Your task to perform on an android device: read, delete, or share a saved page in the chrome app Image 0: 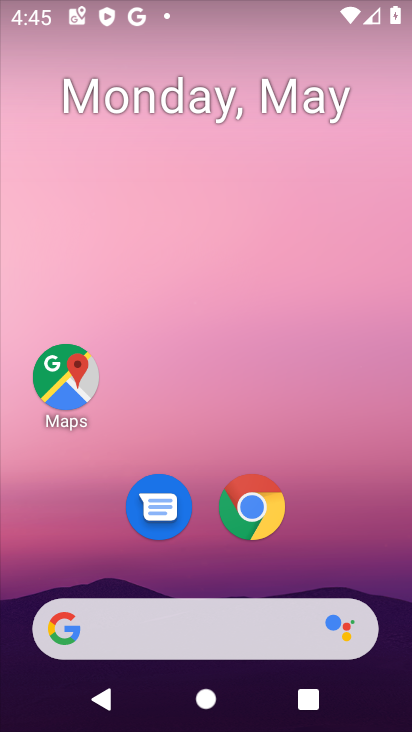
Step 0: drag from (366, 462) to (349, 31)
Your task to perform on an android device: read, delete, or share a saved page in the chrome app Image 1: 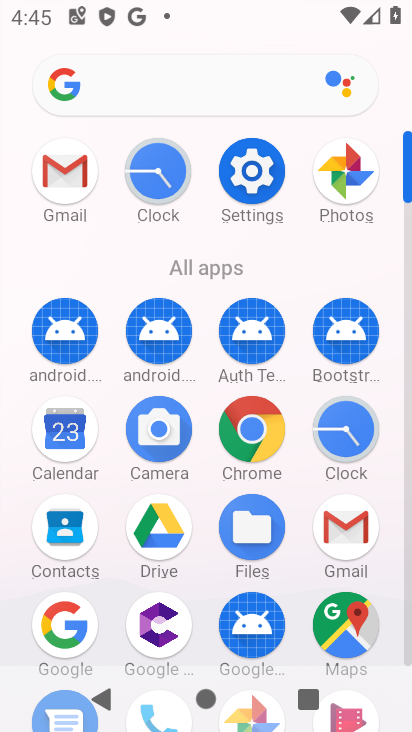
Step 1: click (264, 427)
Your task to perform on an android device: read, delete, or share a saved page in the chrome app Image 2: 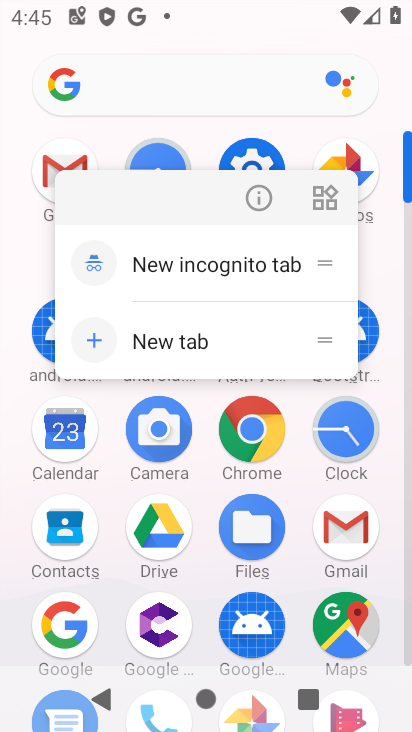
Step 2: click (262, 426)
Your task to perform on an android device: read, delete, or share a saved page in the chrome app Image 3: 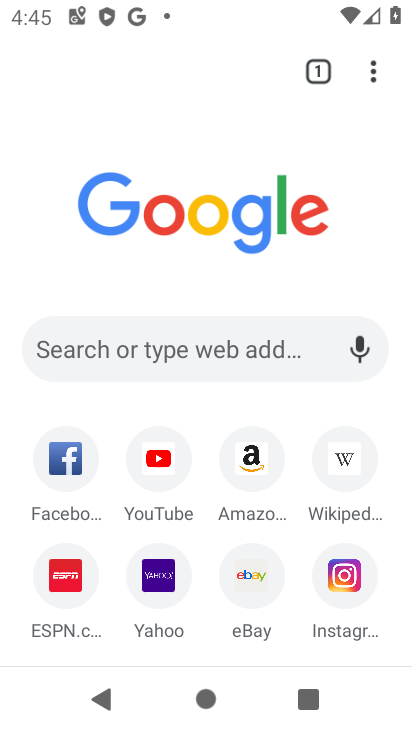
Step 3: task complete